Your task to perform on an android device: toggle location history Image 0: 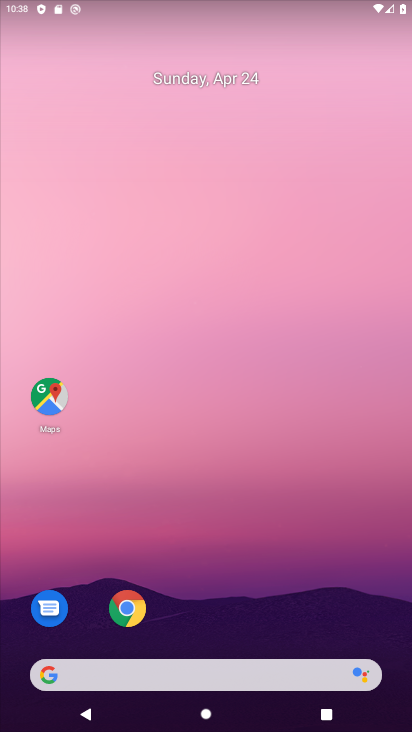
Step 0: click (380, 632)
Your task to perform on an android device: toggle location history Image 1: 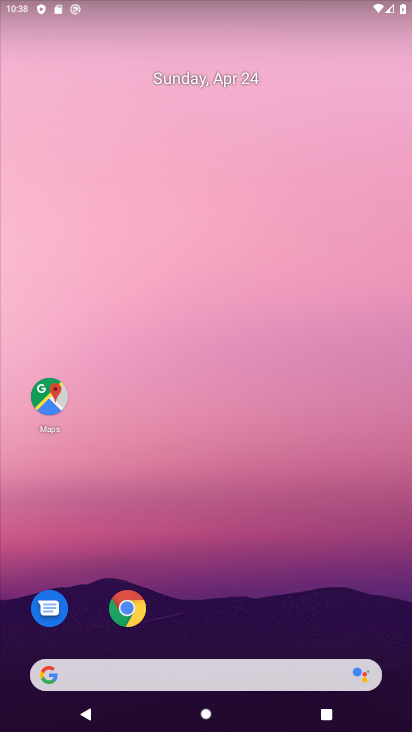
Step 1: drag from (380, 632) to (252, 57)
Your task to perform on an android device: toggle location history Image 2: 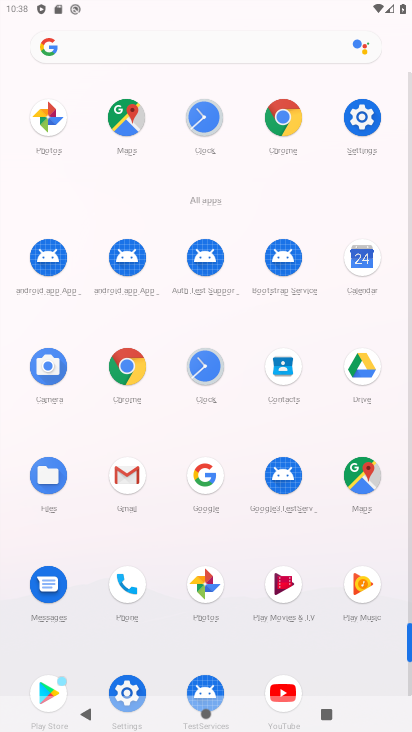
Step 2: click (409, 688)
Your task to perform on an android device: toggle location history Image 3: 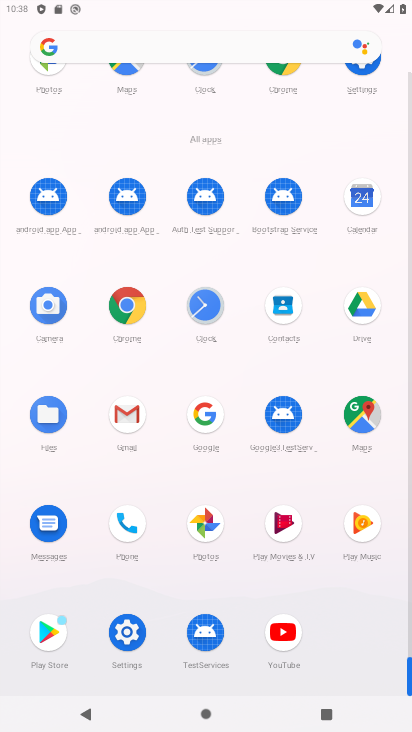
Step 3: click (359, 416)
Your task to perform on an android device: toggle location history Image 4: 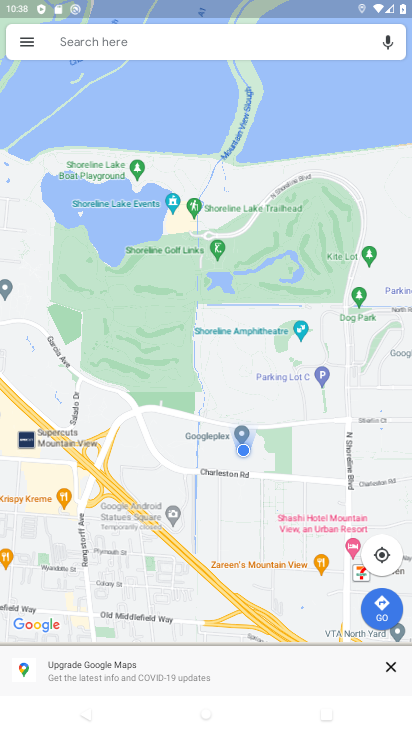
Step 4: click (24, 38)
Your task to perform on an android device: toggle location history Image 5: 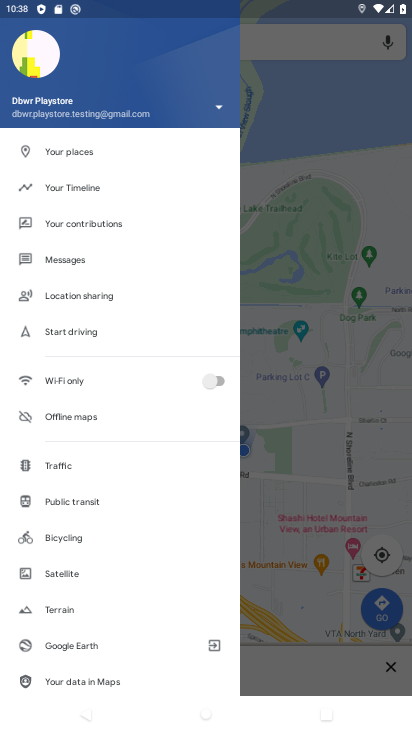
Step 5: drag from (127, 641) to (156, 257)
Your task to perform on an android device: toggle location history Image 6: 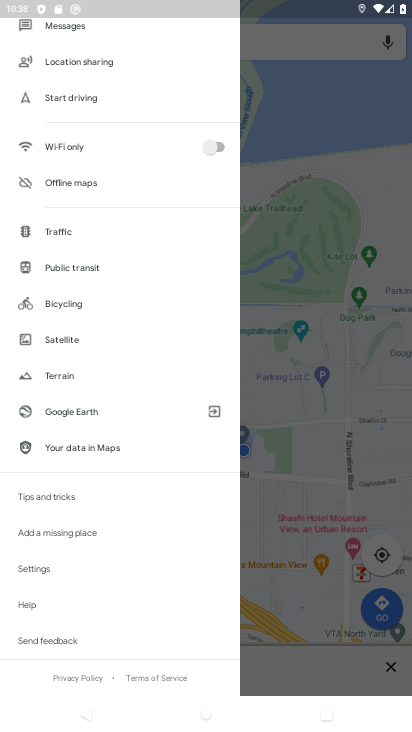
Step 6: click (32, 568)
Your task to perform on an android device: toggle location history Image 7: 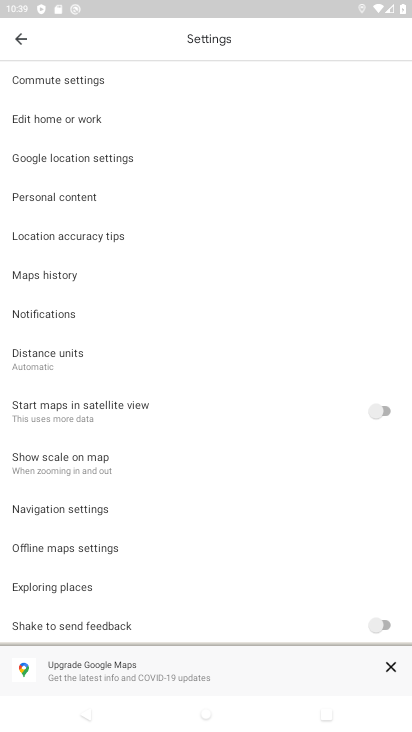
Step 7: drag from (201, 549) to (209, 335)
Your task to perform on an android device: toggle location history Image 8: 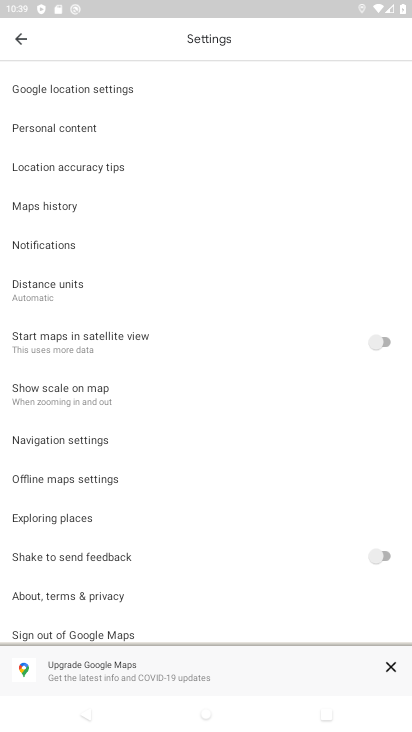
Step 8: click (47, 131)
Your task to perform on an android device: toggle location history Image 9: 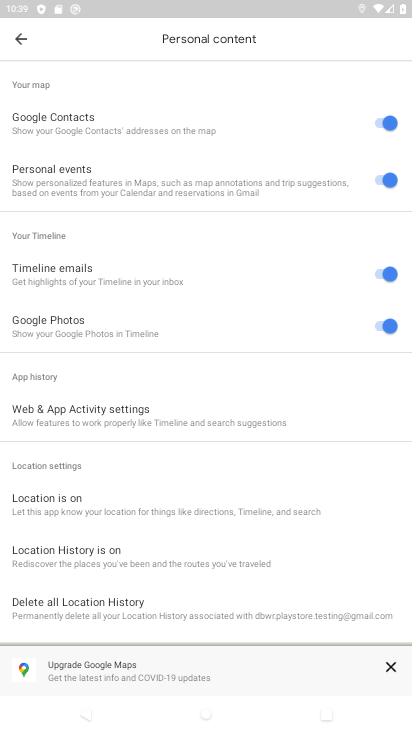
Step 9: drag from (255, 494) to (289, 216)
Your task to perform on an android device: toggle location history Image 10: 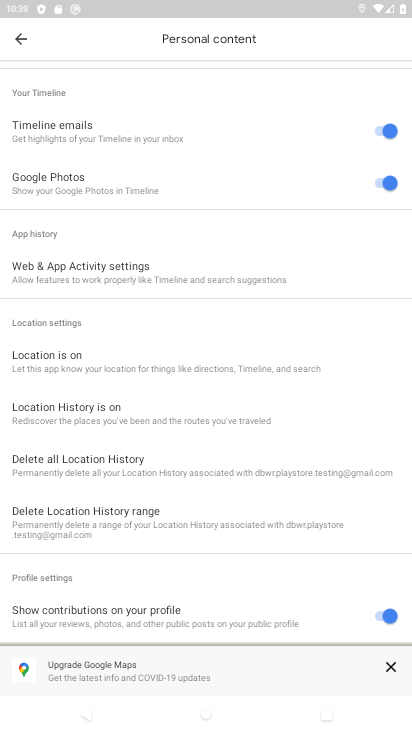
Step 10: drag from (324, 499) to (336, 133)
Your task to perform on an android device: toggle location history Image 11: 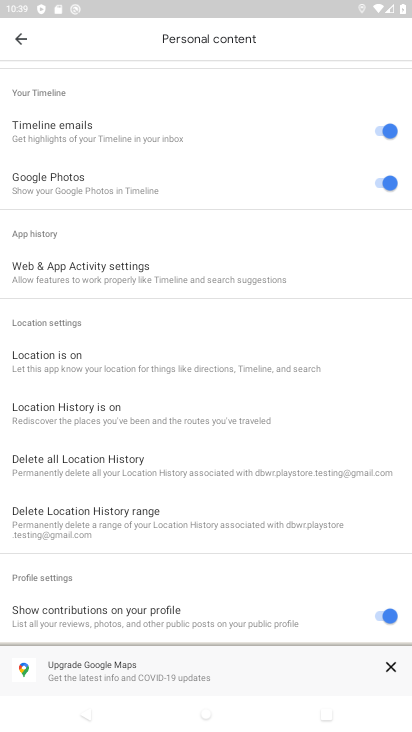
Step 11: drag from (320, 601) to (342, 232)
Your task to perform on an android device: toggle location history Image 12: 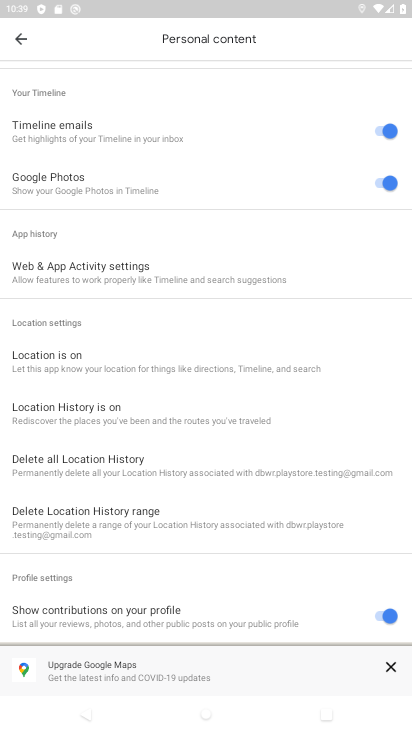
Step 12: drag from (330, 512) to (296, 137)
Your task to perform on an android device: toggle location history Image 13: 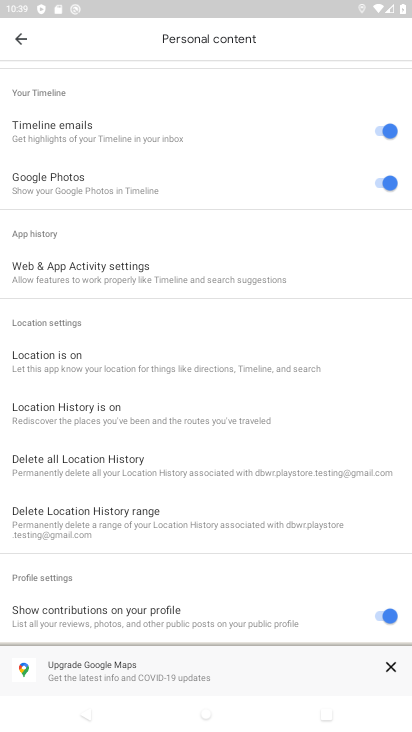
Step 13: drag from (327, 580) to (309, 242)
Your task to perform on an android device: toggle location history Image 14: 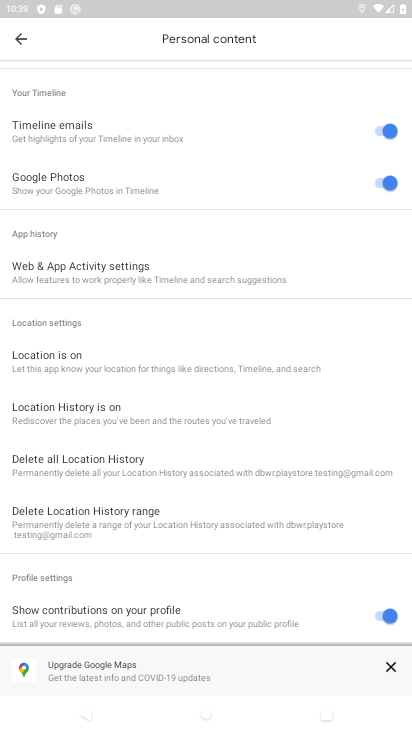
Step 14: click (73, 407)
Your task to perform on an android device: toggle location history Image 15: 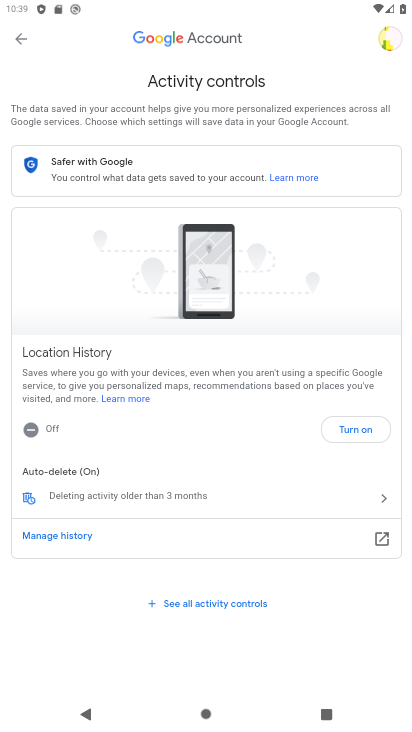
Step 15: click (355, 422)
Your task to perform on an android device: toggle location history Image 16: 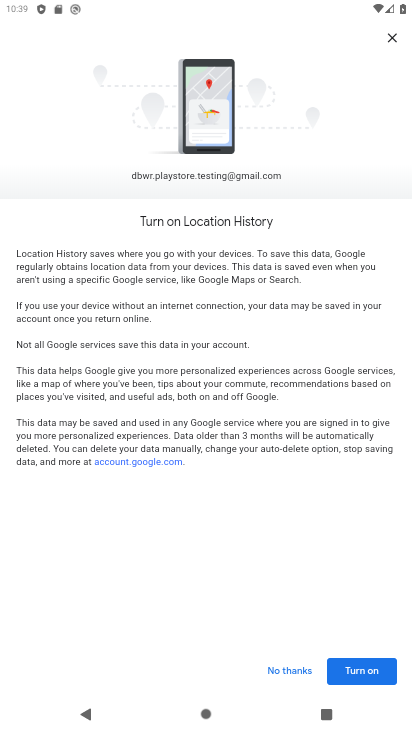
Step 16: click (362, 664)
Your task to perform on an android device: toggle location history Image 17: 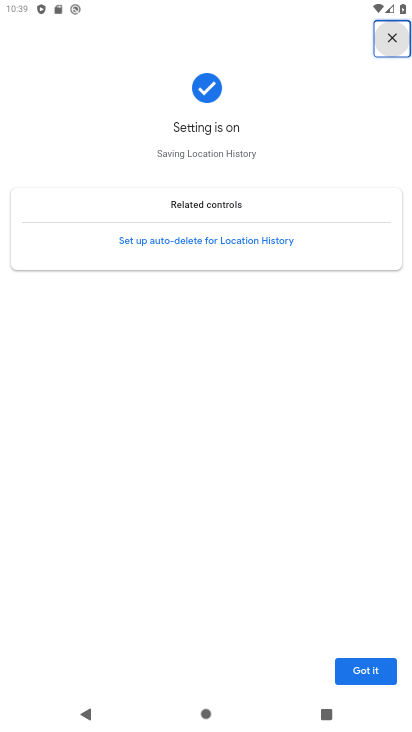
Step 17: click (356, 672)
Your task to perform on an android device: toggle location history Image 18: 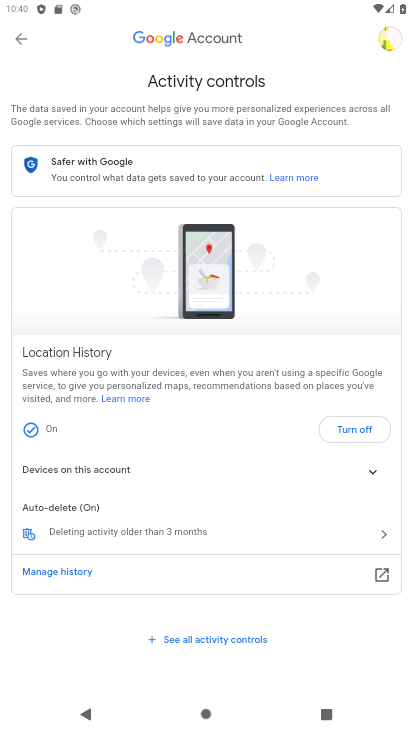
Step 18: task complete